Your task to perform on an android device: Search for razer blade on costco.com, select the first entry, and add it to the cart. Image 0: 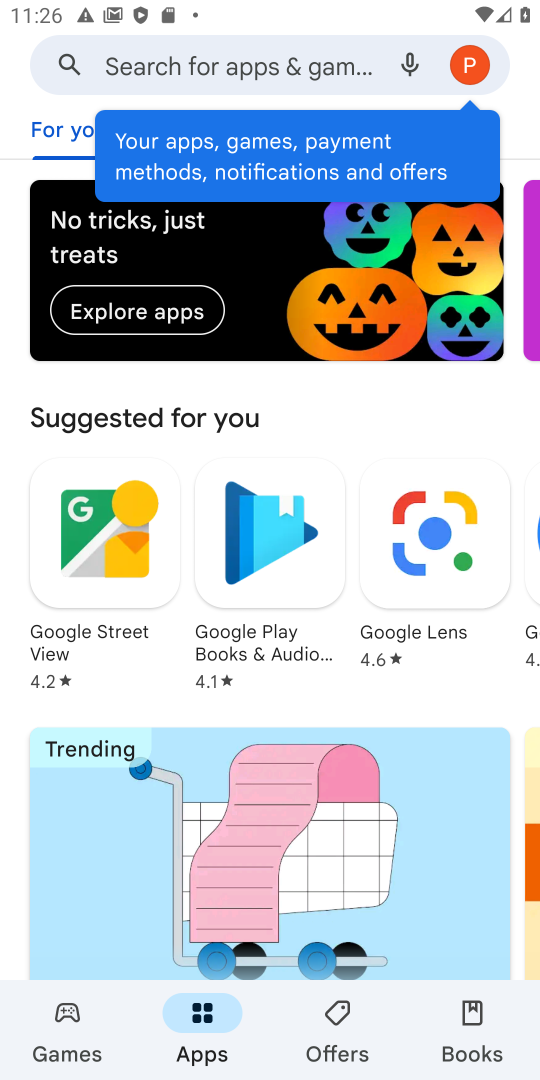
Step 0: press home button
Your task to perform on an android device: Search for razer blade on costco.com, select the first entry, and add it to the cart. Image 1: 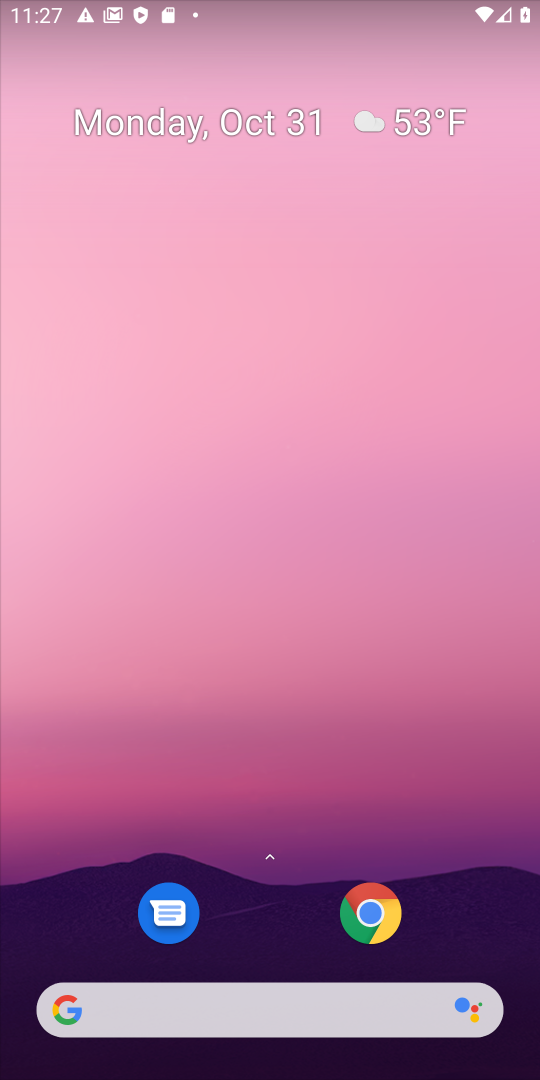
Step 1: click (277, 1012)
Your task to perform on an android device: Search for razer blade on costco.com, select the first entry, and add it to the cart. Image 2: 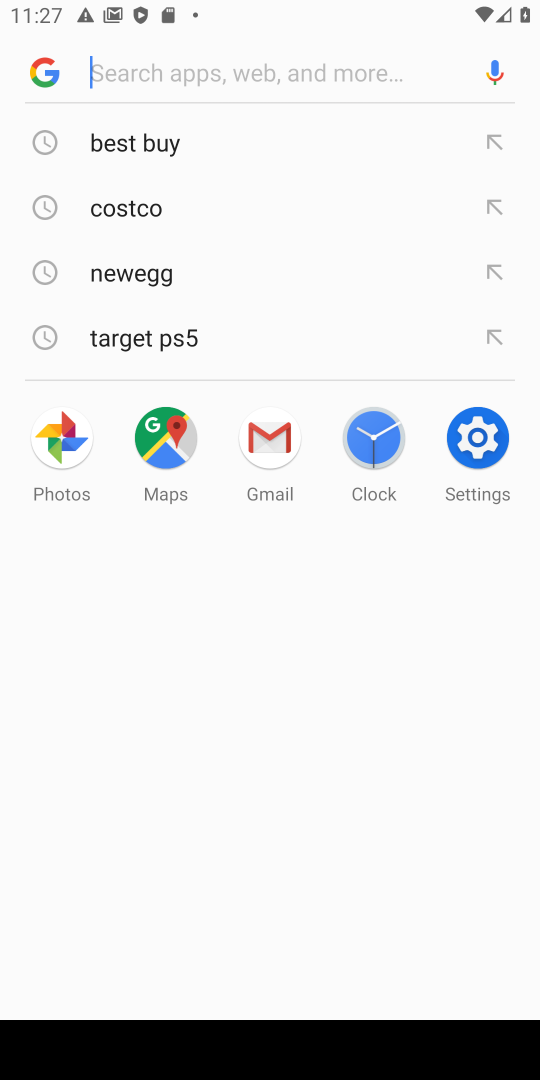
Step 2: type "cotco.com"
Your task to perform on an android device: Search for razer blade on costco.com, select the first entry, and add it to the cart. Image 3: 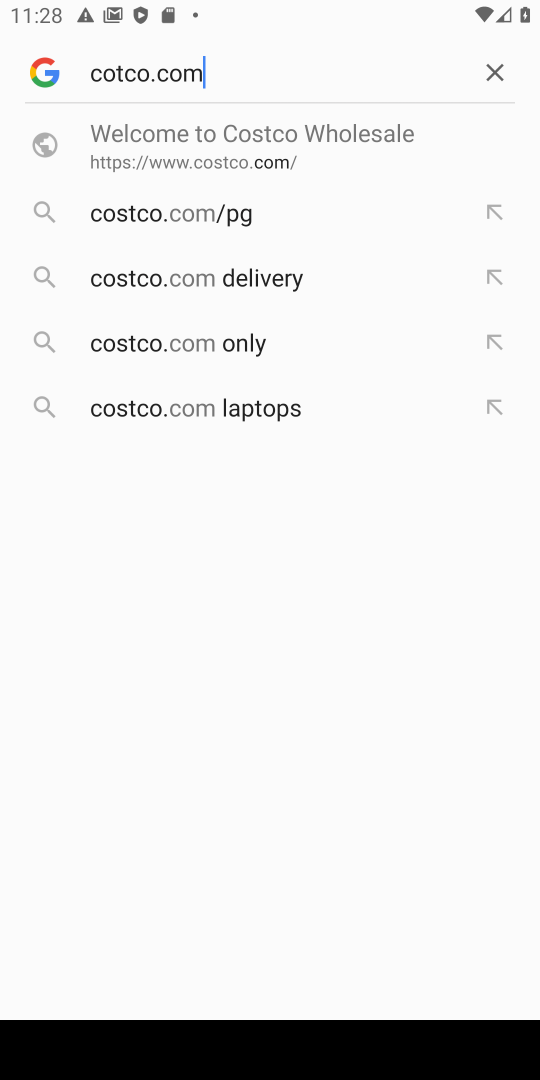
Step 3: click (208, 158)
Your task to perform on an android device: Search for razer blade on costco.com, select the first entry, and add it to the cart. Image 4: 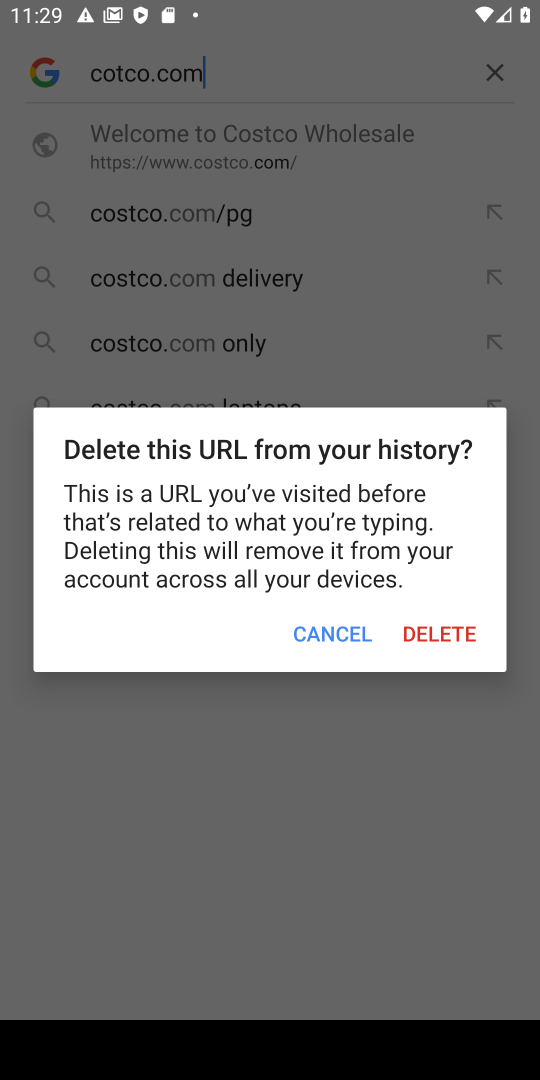
Step 4: task complete